Your task to perform on an android device: turn off notifications settings in the gmail app Image 0: 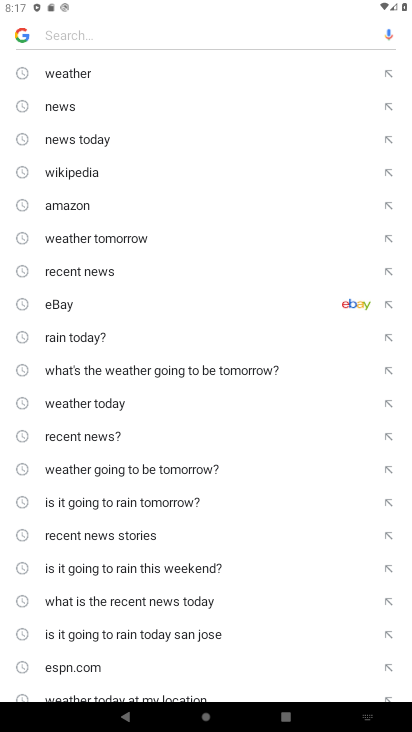
Step 0: press home button
Your task to perform on an android device: turn off notifications settings in the gmail app Image 1: 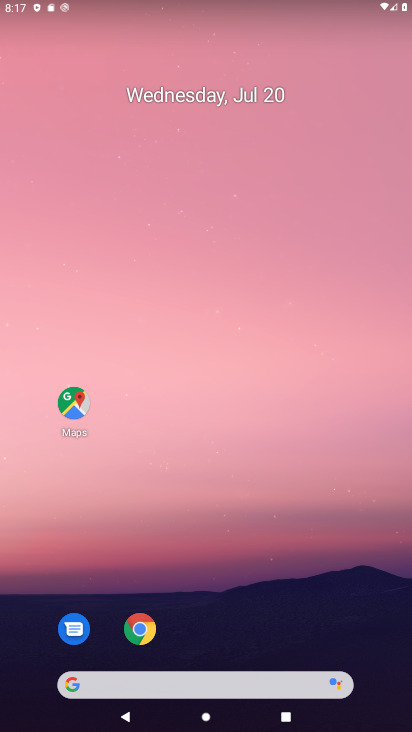
Step 1: drag from (247, 620) to (292, 137)
Your task to perform on an android device: turn off notifications settings in the gmail app Image 2: 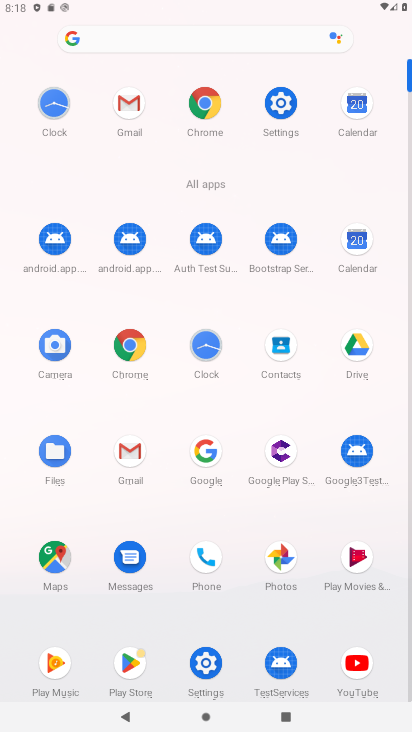
Step 2: click (139, 115)
Your task to perform on an android device: turn off notifications settings in the gmail app Image 3: 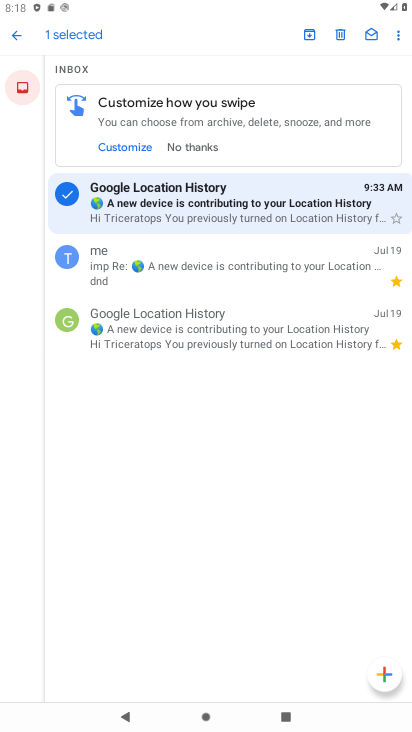
Step 3: click (20, 30)
Your task to perform on an android device: turn off notifications settings in the gmail app Image 4: 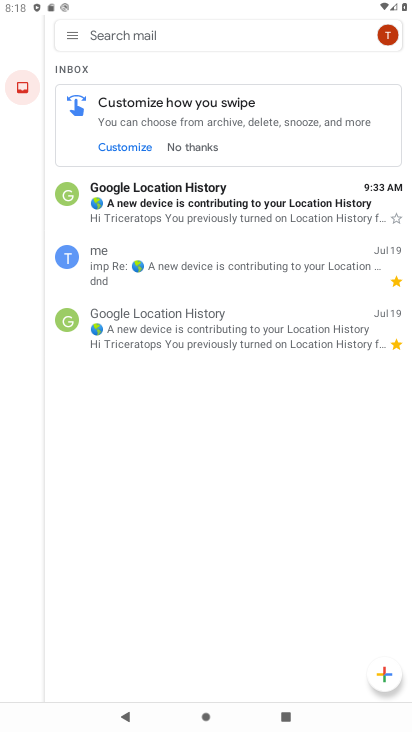
Step 4: click (68, 33)
Your task to perform on an android device: turn off notifications settings in the gmail app Image 5: 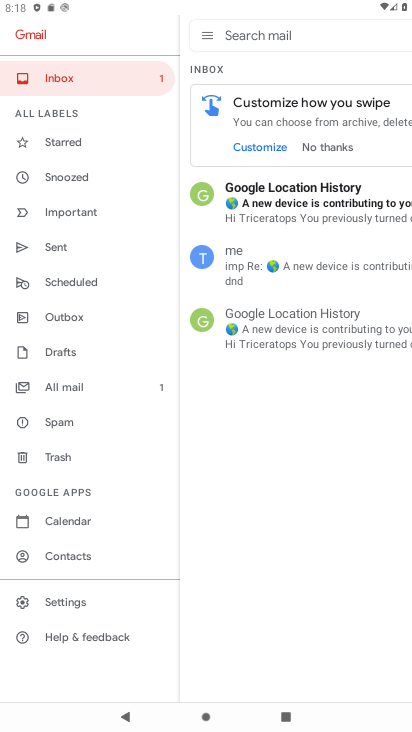
Step 5: click (67, 595)
Your task to perform on an android device: turn off notifications settings in the gmail app Image 6: 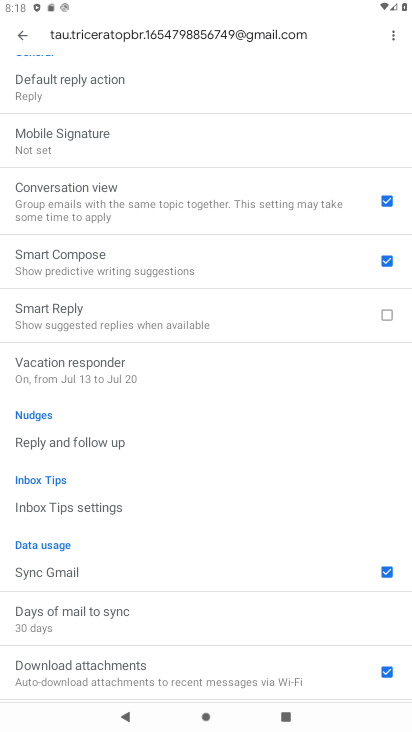
Step 6: drag from (175, 275) to (189, 705)
Your task to perform on an android device: turn off notifications settings in the gmail app Image 7: 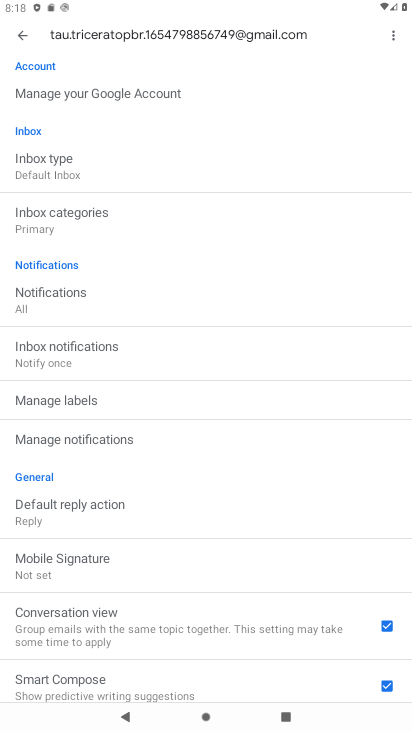
Step 7: click (119, 443)
Your task to perform on an android device: turn off notifications settings in the gmail app Image 8: 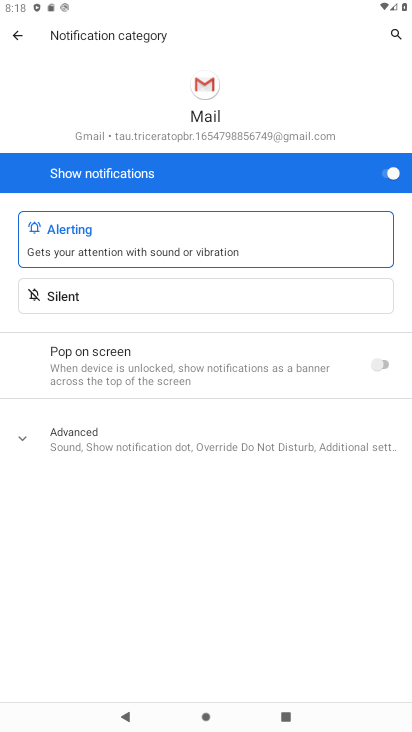
Step 8: click (370, 163)
Your task to perform on an android device: turn off notifications settings in the gmail app Image 9: 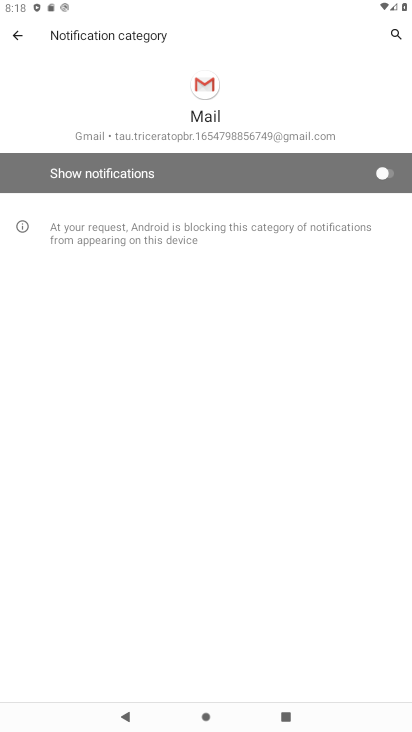
Step 9: task complete